Your task to perform on an android device: turn smart compose on in the gmail app Image 0: 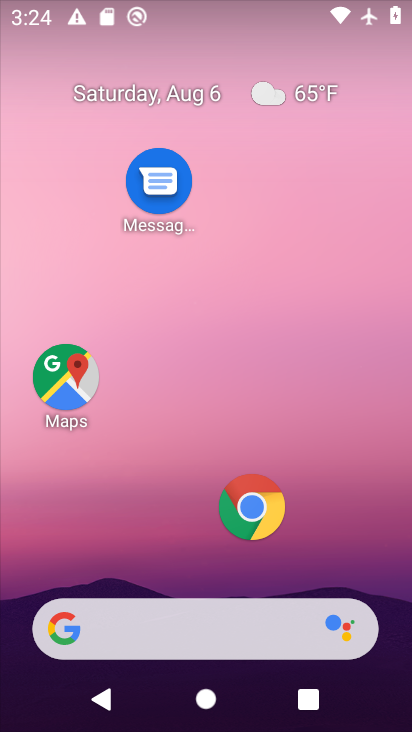
Step 0: drag from (188, 573) to (194, 115)
Your task to perform on an android device: turn smart compose on in the gmail app Image 1: 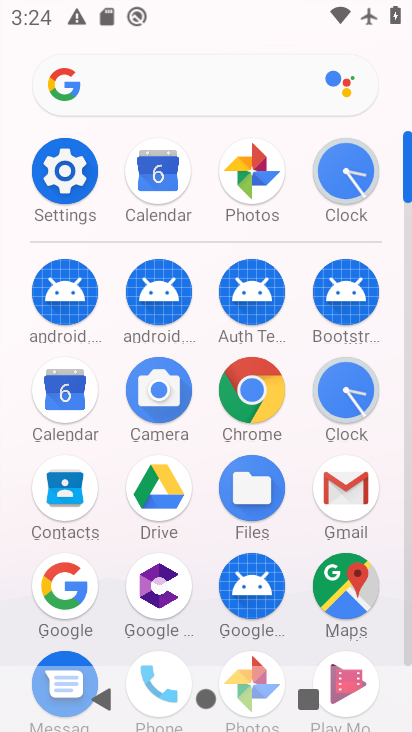
Step 1: click (350, 508)
Your task to perform on an android device: turn smart compose on in the gmail app Image 2: 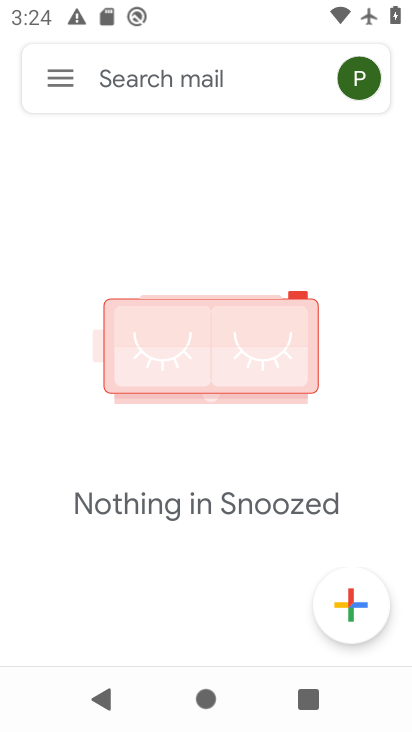
Step 2: click (58, 84)
Your task to perform on an android device: turn smart compose on in the gmail app Image 3: 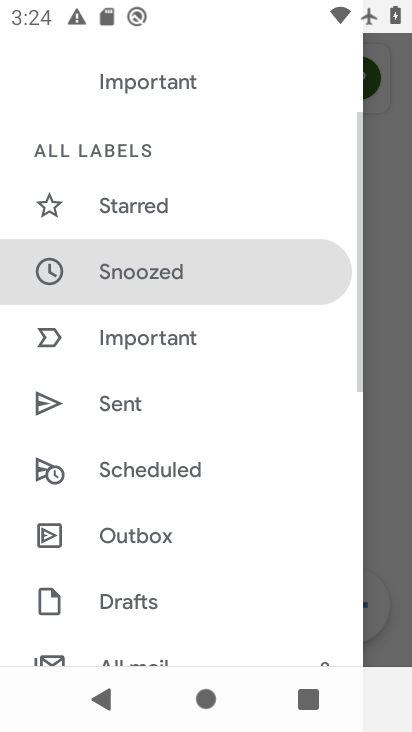
Step 3: drag from (113, 574) to (156, 260)
Your task to perform on an android device: turn smart compose on in the gmail app Image 4: 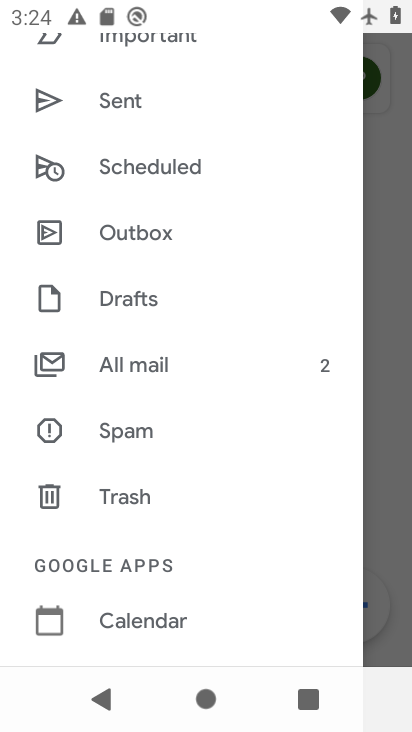
Step 4: drag from (171, 603) to (170, 425)
Your task to perform on an android device: turn smart compose on in the gmail app Image 5: 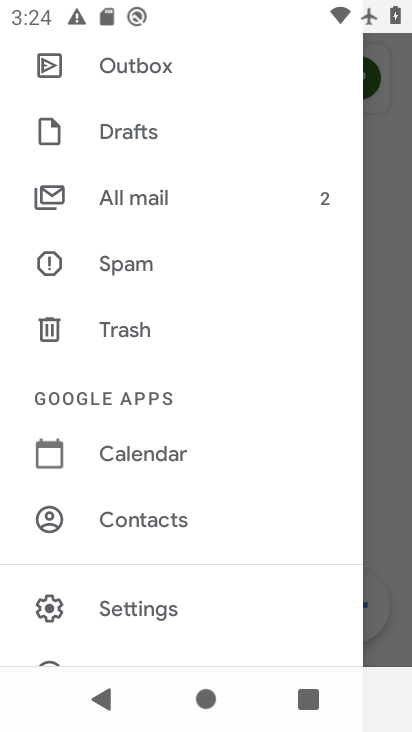
Step 5: click (162, 607)
Your task to perform on an android device: turn smart compose on in the gmail app Image 6: 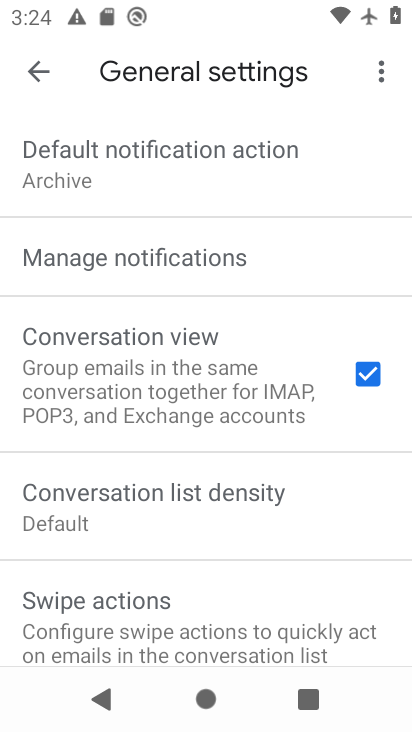
Step 6: drag from (181, 562) to (181, 345)
Your task to perform on an android device: turn smart compose on in the gmail app Image 7: 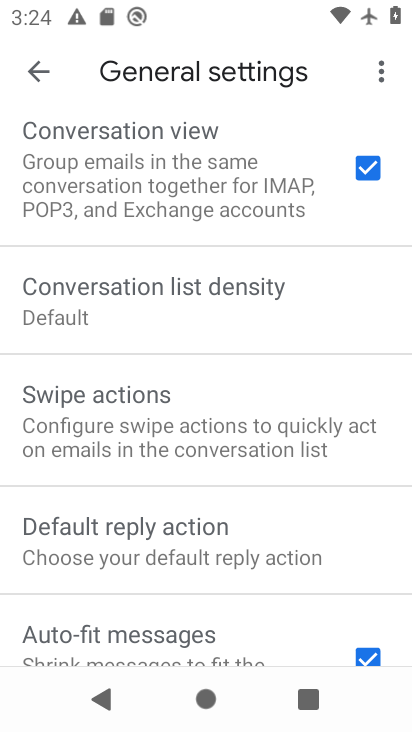
Step 7: drag from (189, 348) to (209, 142)
Your task to perform on an android device: turn smart compose on in the gmail app Image 8: 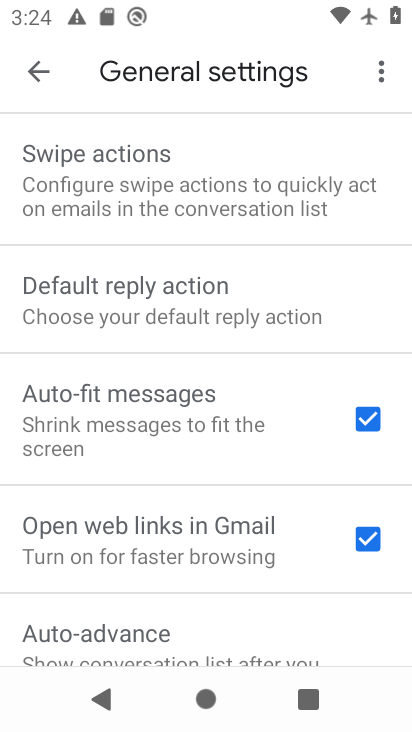
Step 8: click (26, 63)
Your task to perform on an android device: turn smart compose on in the gmail app Image 9: 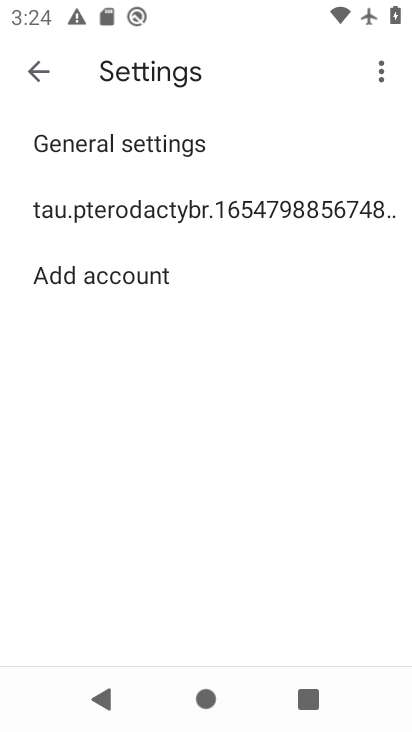
Step 9: click (187, 211)
Your task to perform on an android device: turn smart compose on in the gmail app Image 10: 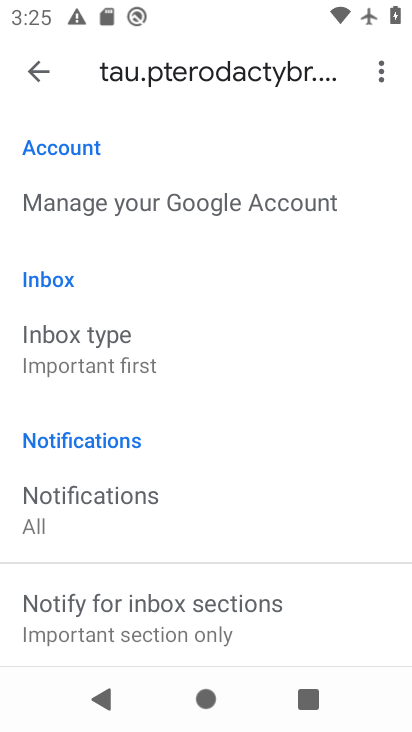
Step 10: task complete